Your task to perform on an android device: Search for a small bookcase on Ikea.com Image 0: 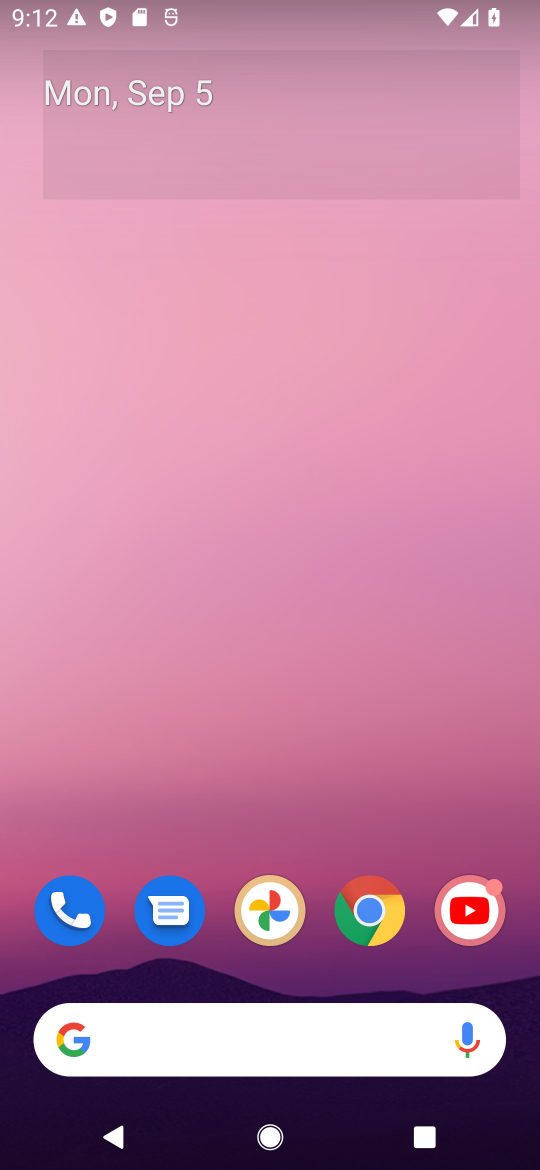
Step 0: click (410, 911)
Your task to perform on an android device: Search for a small bookcase on Ikea.com Image 1: 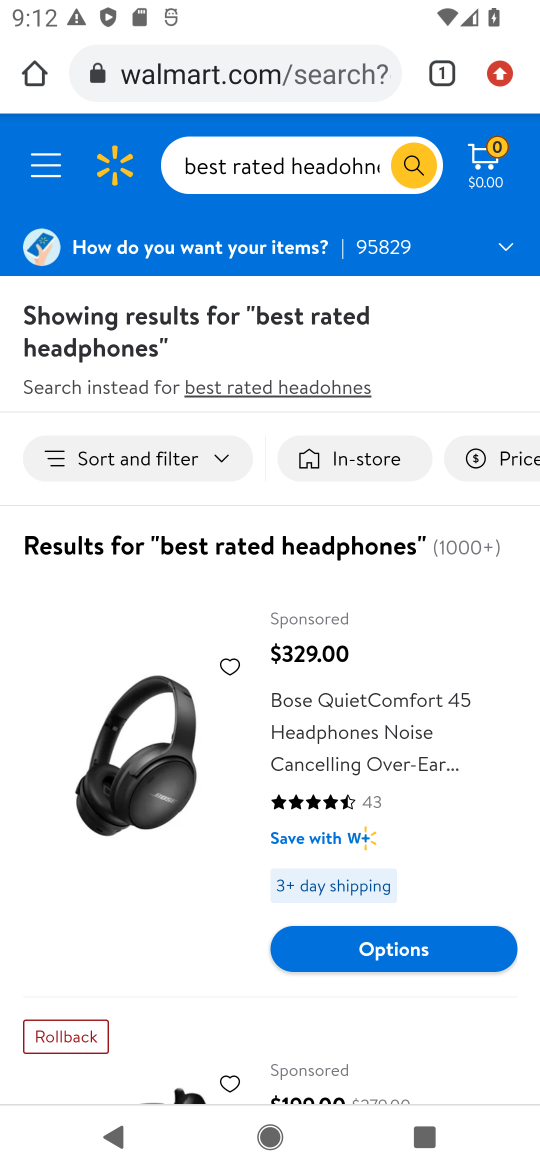
Step 1: click (330, 67)
Your task to perform on an android device: Search for a small bookcase on Ikea.com Image 2: 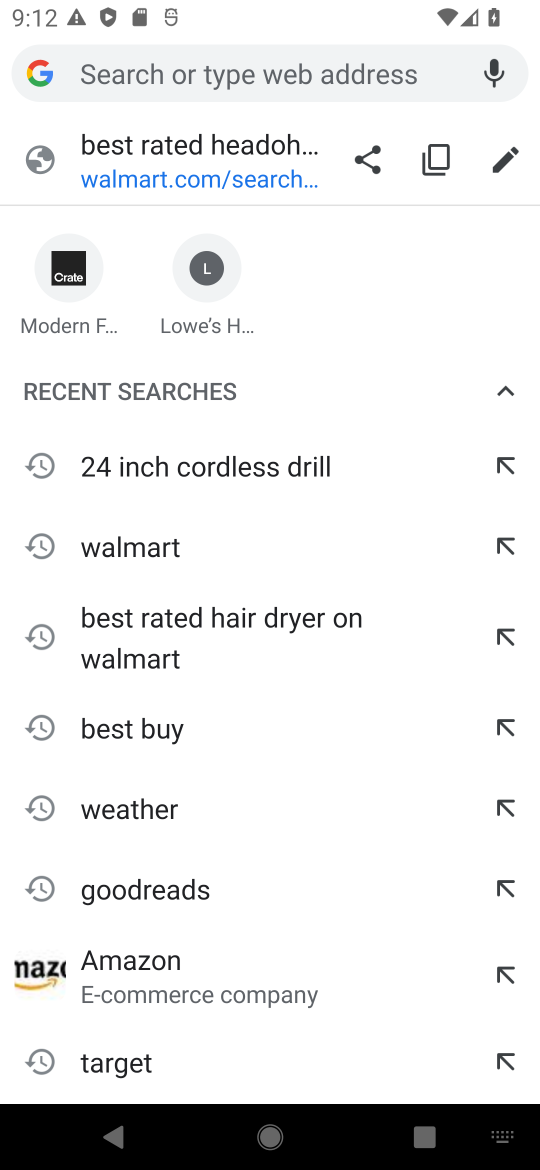
Step 2: type "ikea.com"
Your task to perform on an android device: Search for a small bookcase on Ikea.com Image 3: 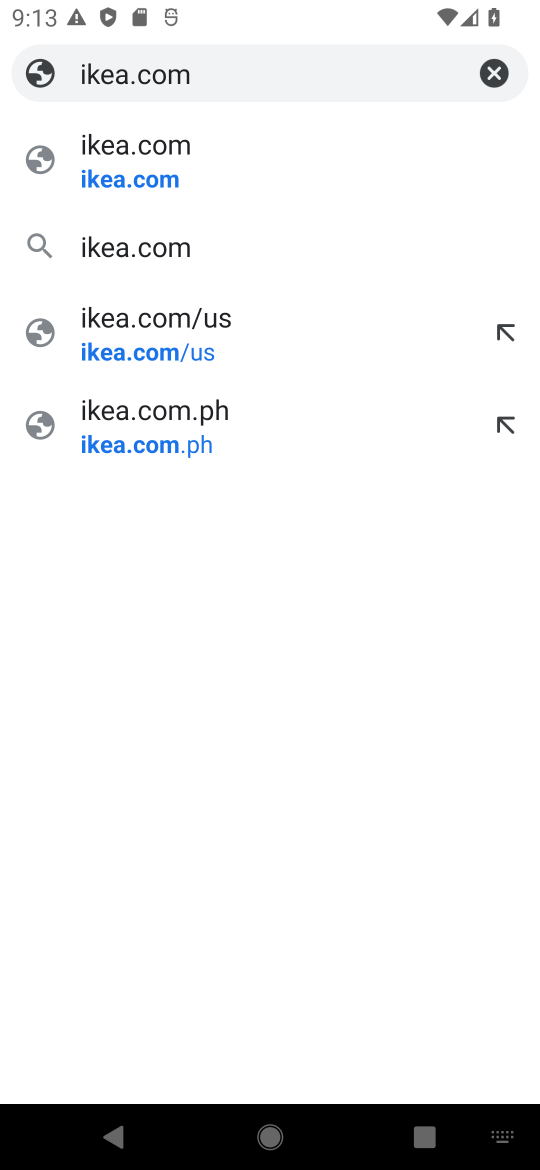
Step 3: click (278, 184)
Your task to perform on an android device: Search for a small bookcase on Ikea.com Image 4: 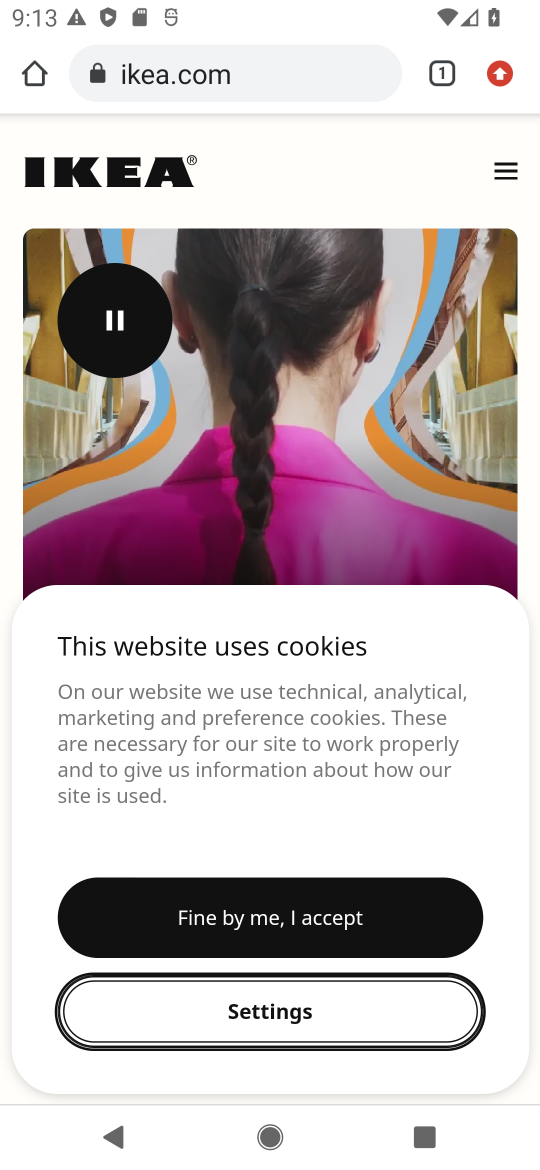
Step 4: click (303, 859)
Your task to perform on an android device: Search for a small bookcase on Ikea.com Image 5: 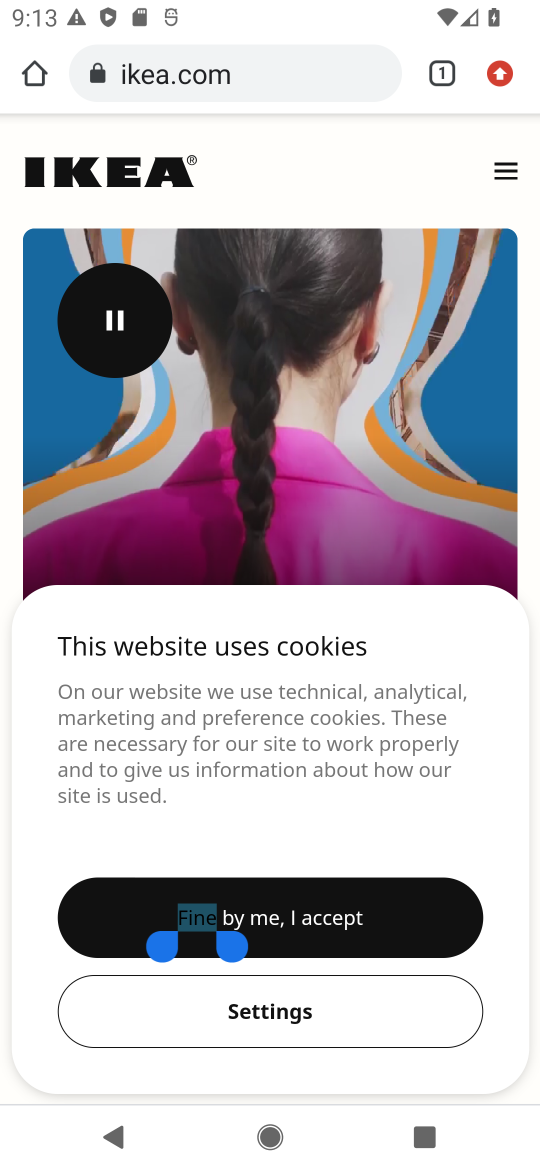
Step 5: click (344, 934)
Your task to perform on an android device: Search for a small bookcase on Ikea.com Image 6: 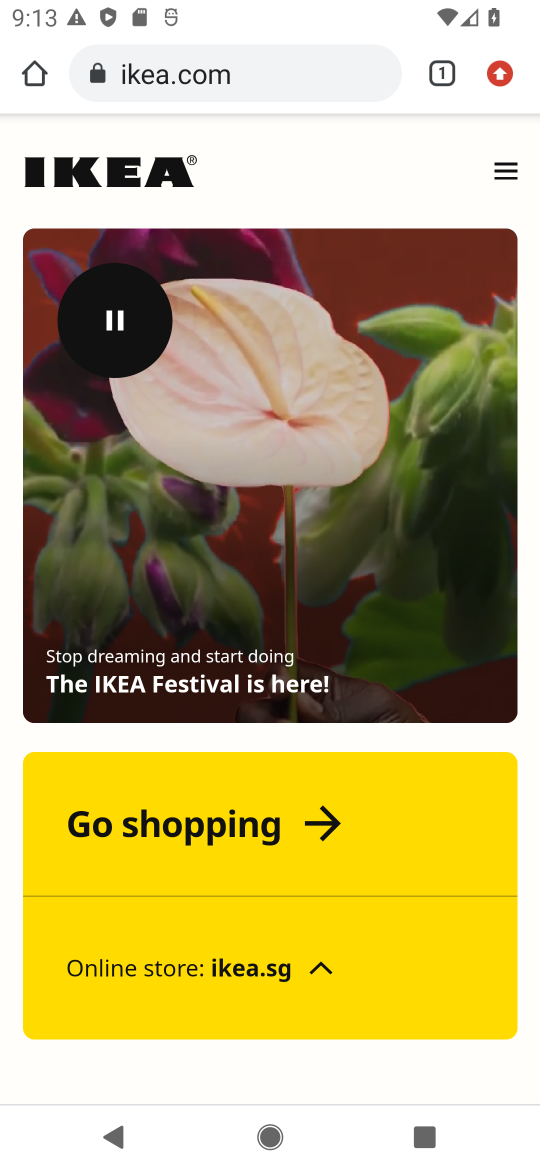
Step 6: click (331, 820)
Your task to perform on an android device: Search for a small bookcase on Ikea.com Image 7: 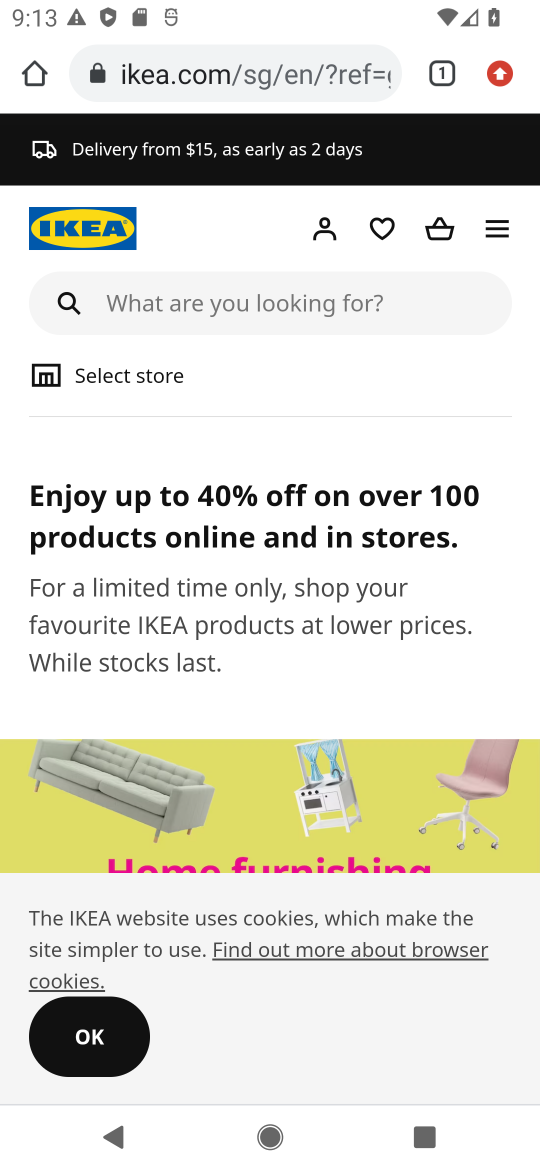
Step 7: click (116, 1013)
Your task to perform on an android device: Search for a small bookcase on Ikea.com Image 8: 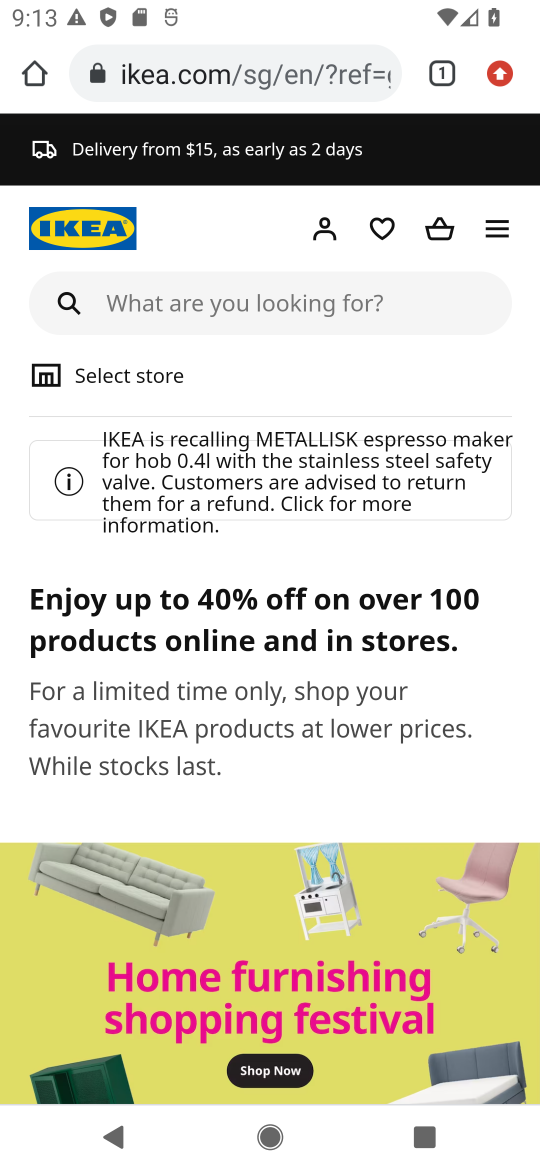
Step 8: click (314, 304)
Your task to perform on an android device: Search for a small bookcase on Ikea.com Image 9: 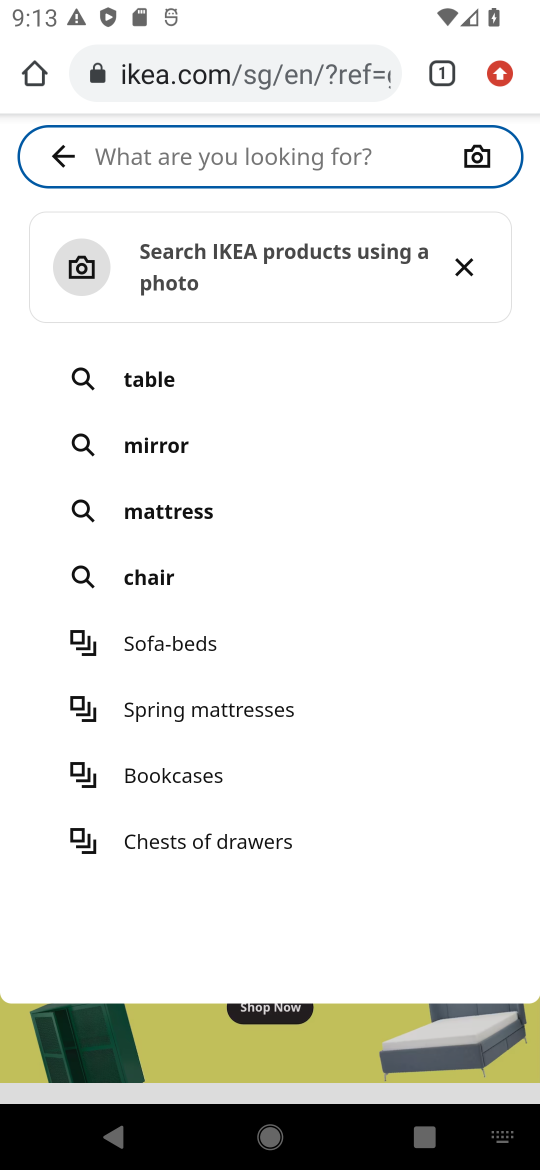
Step 9: type "small bookcase"
Your task to perform on an android device: Search for a small bookcase on Ikea.com Image 10: 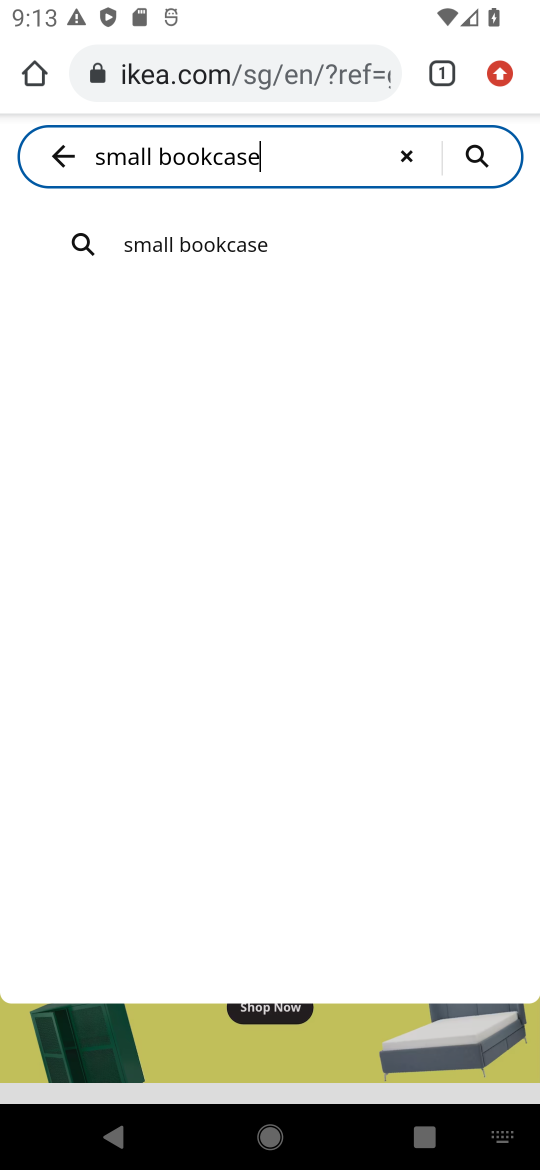
Step 10: press enter
Your task to perform on an android device: Search for a small bookcase on Ikea.com Image 11: 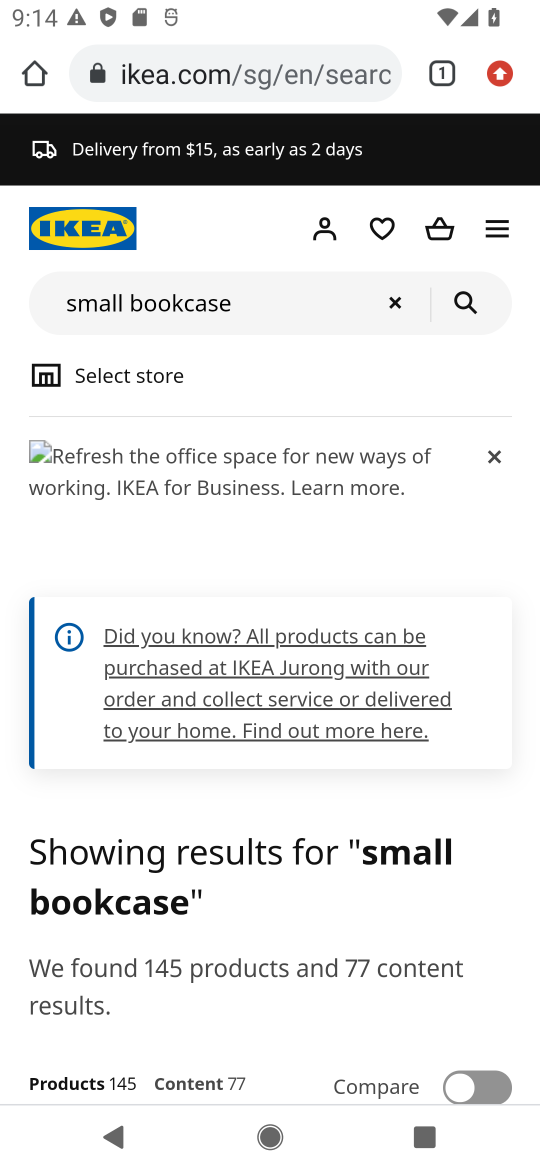
Step 11: task complete